Your task to perform on an android device: turn off notifications in google photos Image 0: 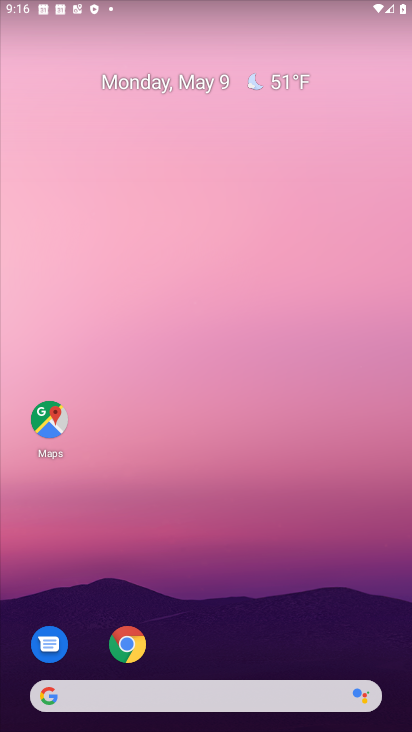
Step 0: drag from (217, 677) to (377, 65)
Your task to perform on an android device: turn off notifications in google photos Image 1: 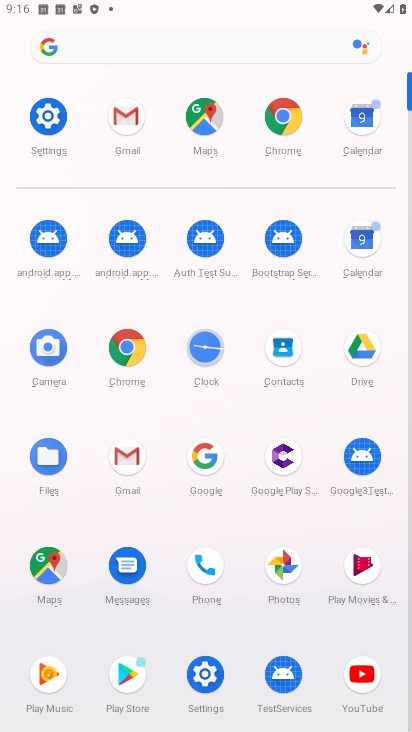
Step 1: click (283, 586)
Your task to perform on an android device: turn off notifications in google photos Image 2: 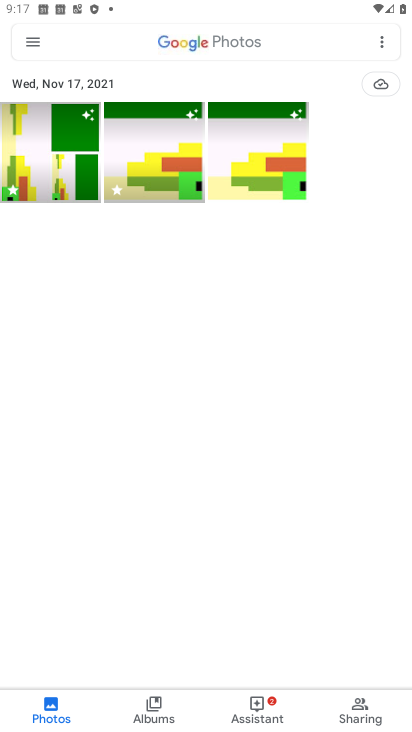
Step 2: click (18, 45)
Your task to perform on an android device: turn off notifications in google photos Image 3: 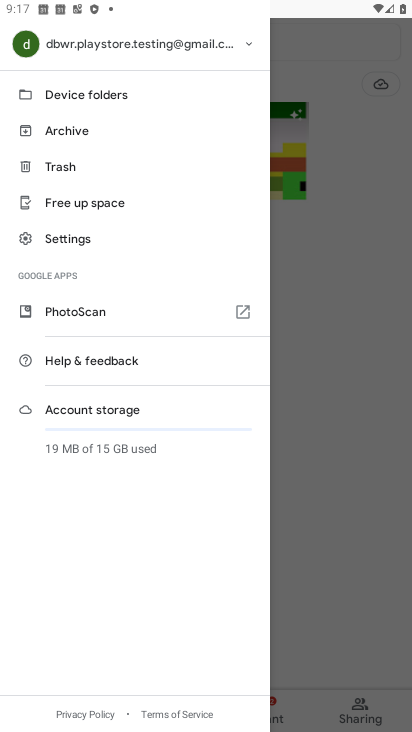
Step 3: click (57, 249)
Your task to perform on an android device: turn off notifications in google photos Image 4: 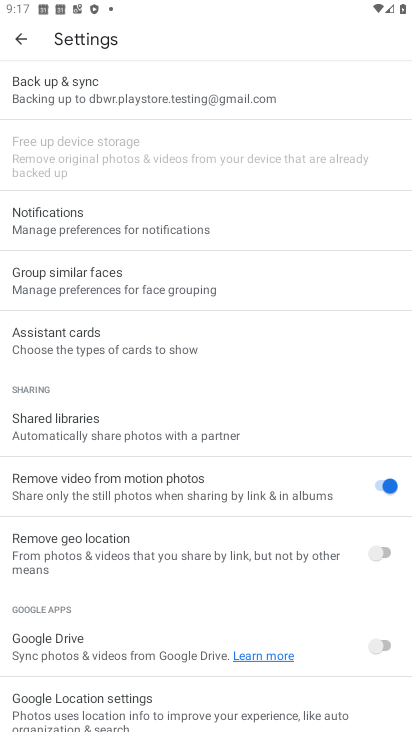
Step 4: click (68, 224)
Your task to perform on an android device: turn off notifications in google photos Image 5: 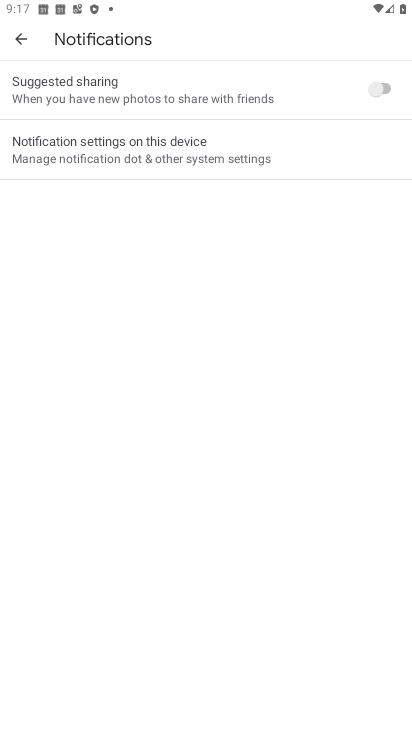
Step 5: click (336, 130)
Your task to perform on an android device: turn off notifications in google photos Image 6: 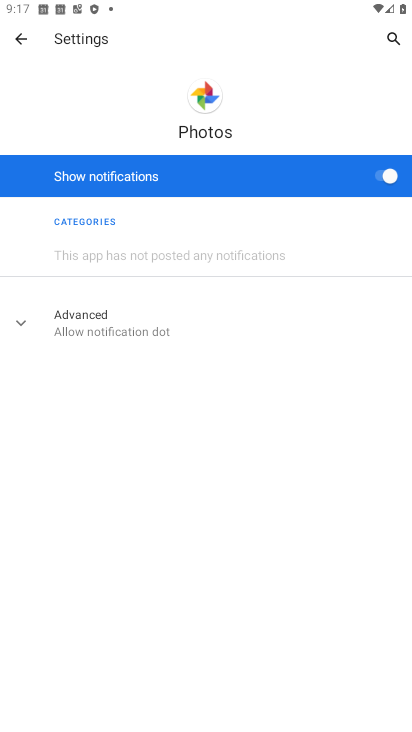
Step 6: click (379, 187)
Your task to perform on an android device: turn off notifications in google photos Image 7: 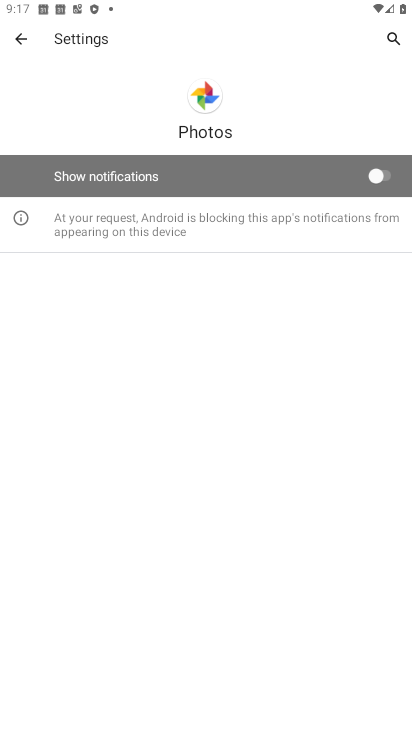
Step 7: task complete